Your task to perform on an android device: create a new album in the google photos Image 0: 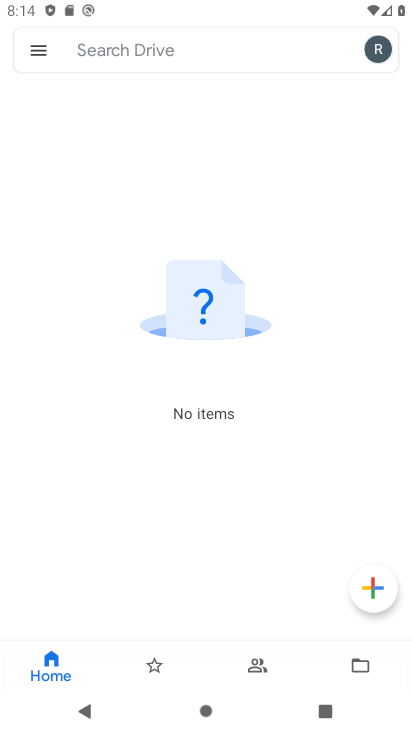
Step 0: press home button
Your task to perform on an android device: create a new album in the google photos Image 1: 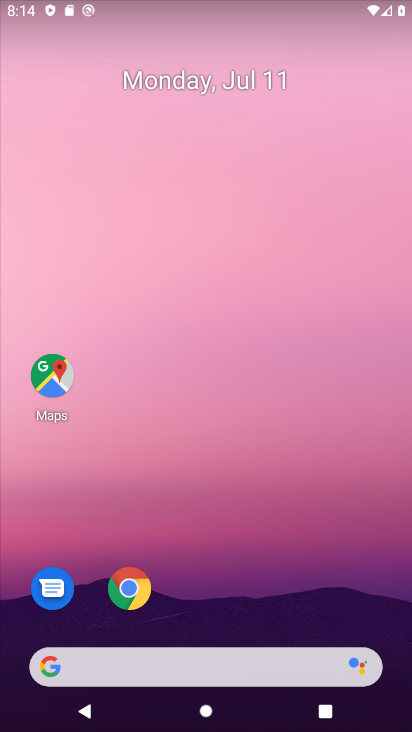
Step 1: drag from (234, 620) to (129, 126)
Your task to perform on an android device: create a new album in the google photos Image 2: 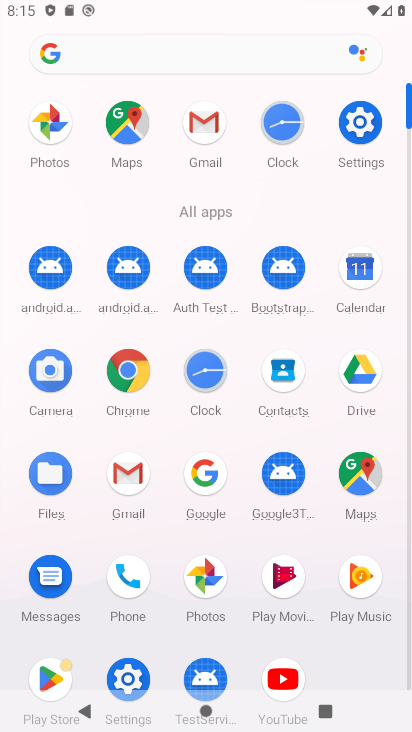
Step 2: click (52, 131)
Your task to perform on an android device: create a new album in the google photos Image 3: 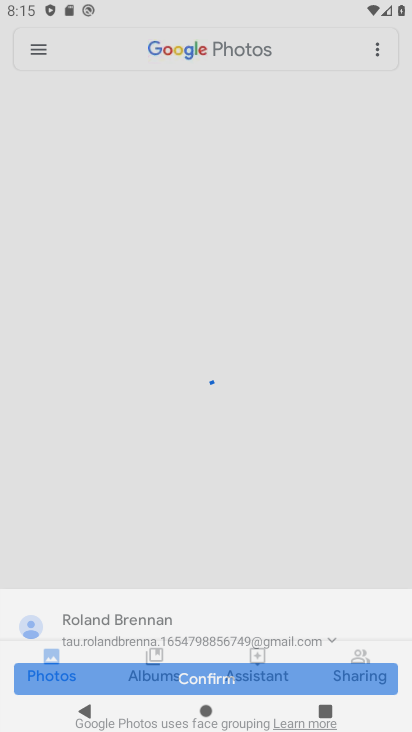
Step 3: click (50, 124)
Your task to perform on an android device: create a new album in the google photos Image 4: 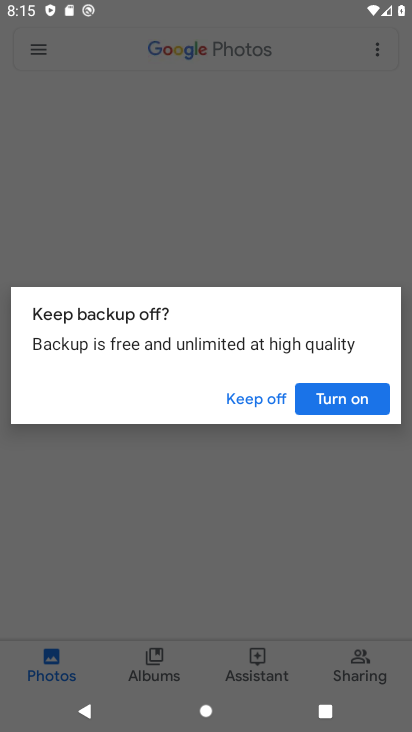
Step 4: click (273, 398)
Your task to perform on an android device: create a new album in the google photos Image 5: 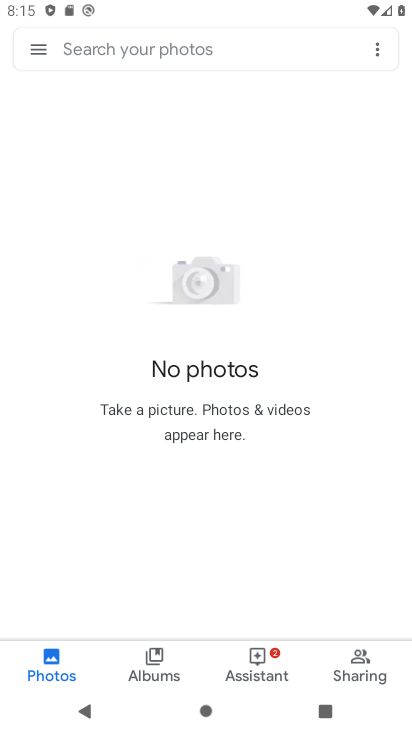
Step 5: click (266, 659)
Your task to perform on an android device: create a new album in the google photos Image 6: 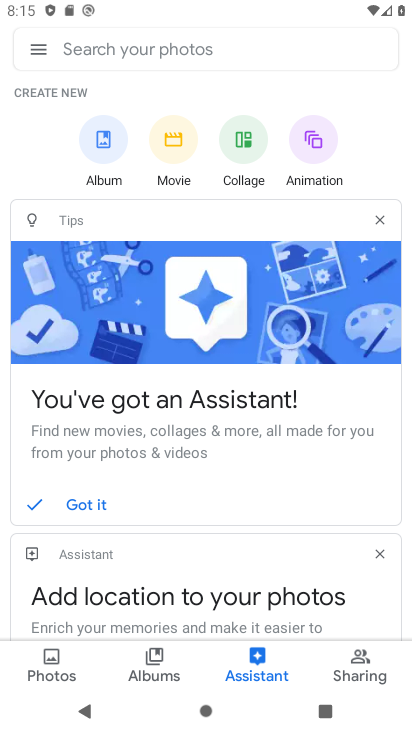
Step 6: click (107, 146)
Your task to perform on an android device: create a new album in the google photos Image 7: 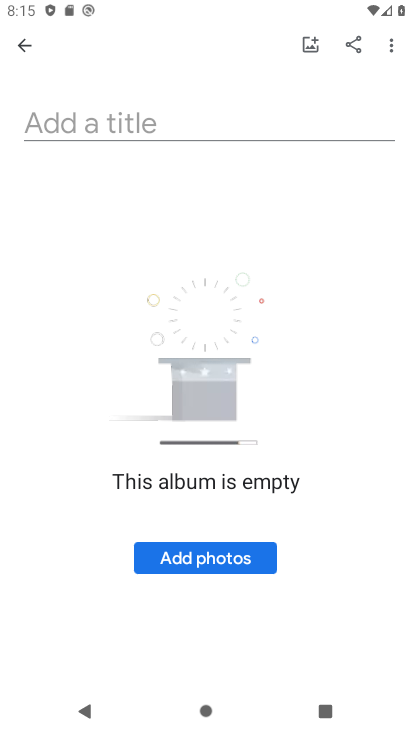
Step 7: click (236, 555)
Your task to perform on an android device: create a new album in the google photos Image 8: 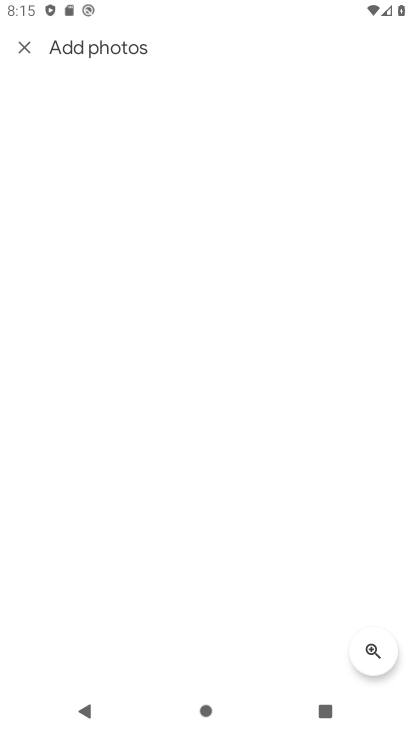
Step 8: task complete